Your task to perform on an android device: Open the Play Movies app and select the watchlist tab. Image 0: 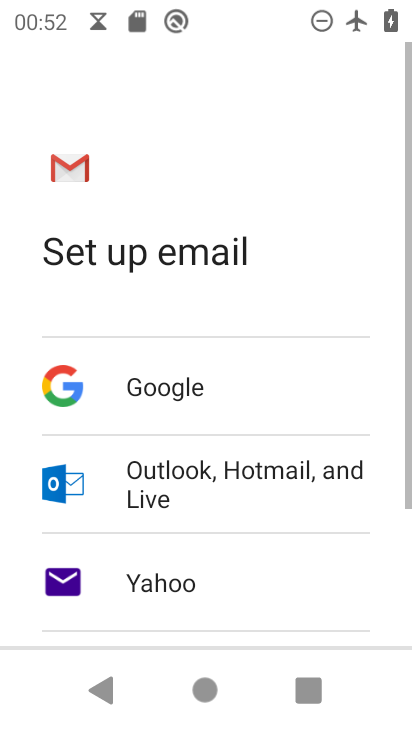
Step 0: drag from (278, 550) to (357, 186)
Your task to perform on an android device: Open the Play Movies app and select the watchlist tab. Image 1: 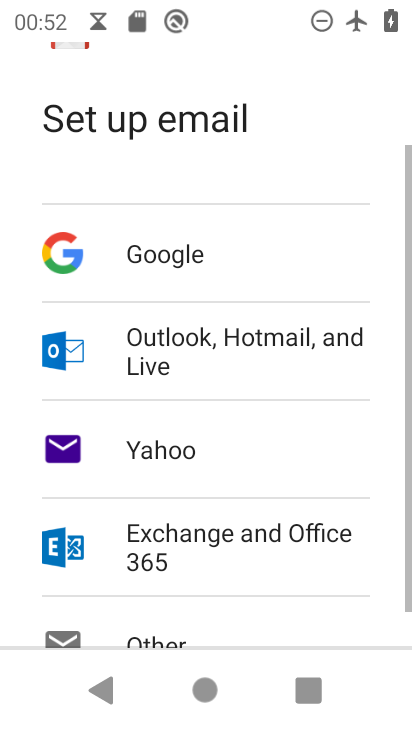
Step 1: drag from (241, 610) to (292, 152)
Your task to perform on an android device: Open the Play Movies app and select the watchlist tab. Image 2: 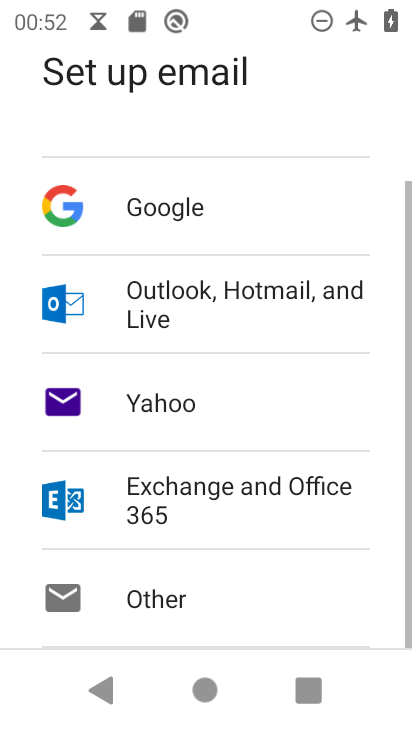
Step 2: drag from (202, 572) to (245, 222)
Your task to perform on an android device: Open the Play Movies app and select the watchlist tab. Image 3: 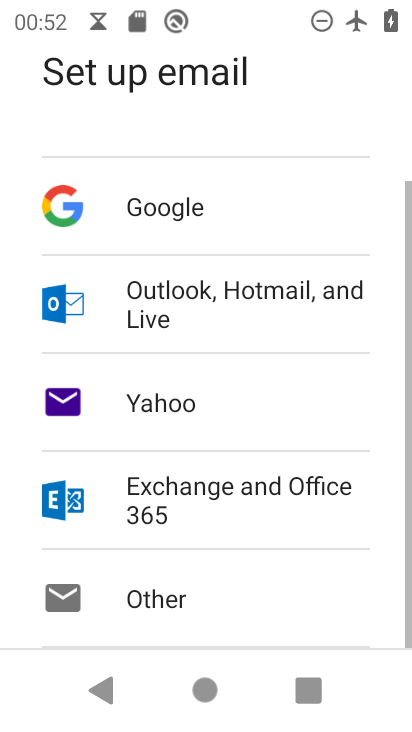
Step 3: drag from (248, 489) to (257, 265)
Your task to perform on an android device: Open the Play Movies app and select the watchlist tab. Image 4: 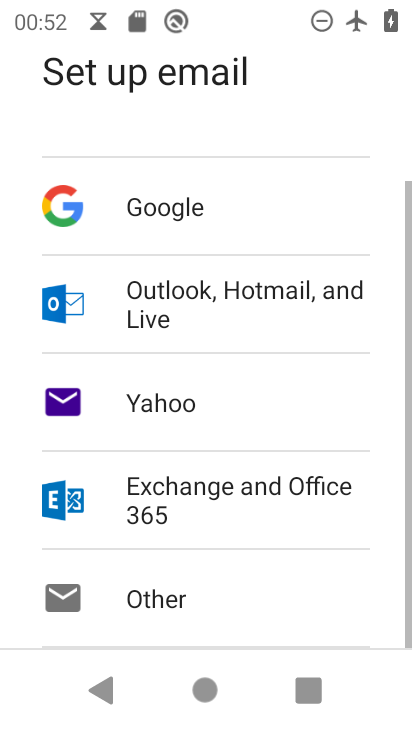
Step 4: drag from (254, 565) to (277, 165)
Your task to perform on an android device: Open the Play Movies app and select the watchlist tab. Image 5: 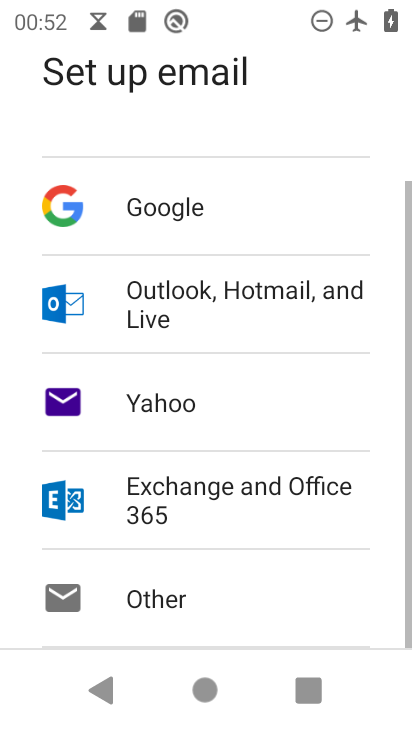
Step 5: drag from (174, 574) to (255, 179)
Your task to perform on an android device: Open the Play Movies app and select the watchlist tab. Image 6: 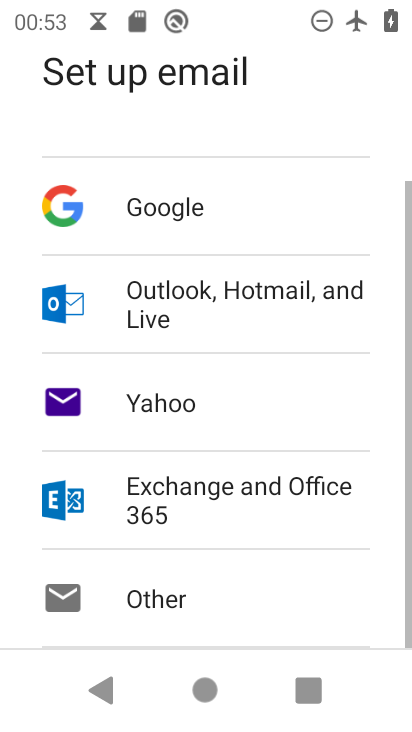
Step 6: drag from (215, 474) to (250, 93)
Your task to perform on an android device: Open the Play Movies app and select the watchlist tab. Image 7: 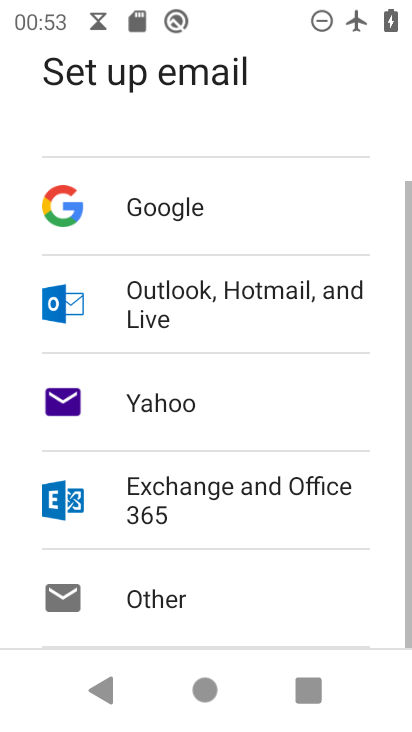
Step 7: press home button
Your task to perform on an android device: Open the Play Movies app and select the watchlist tab. Image 8: 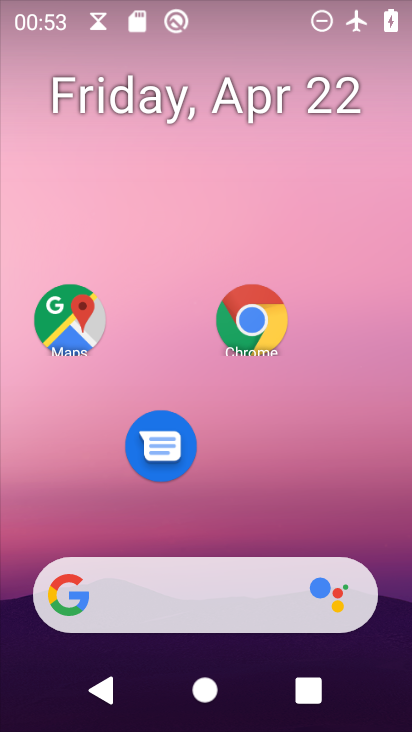
Step 8: drag from (210, 522) to (143, 231)
Your task to perform on an android device: Open the Play Movies app and select the watchlist tab. Image 9: 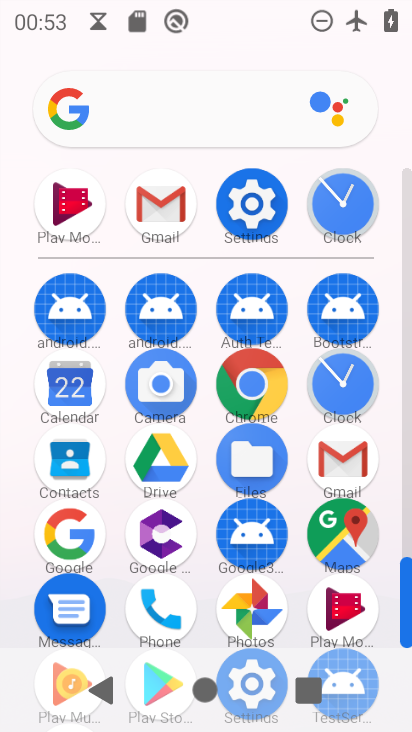
Step 9: click (335, 616)
Your task to perform on an android device: Open the Play Movies app and select the watchlist tab. Image 10: 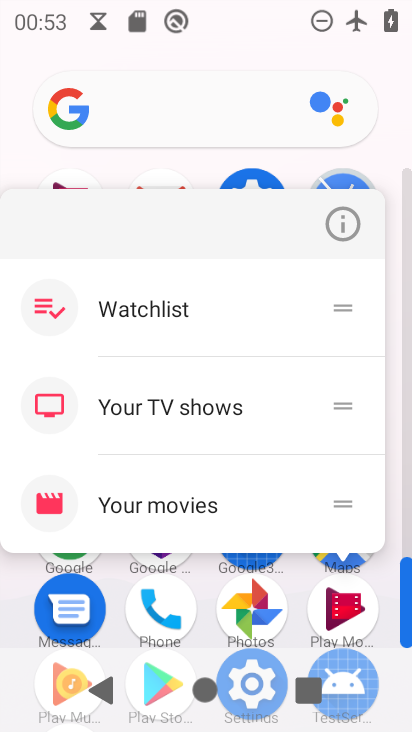
Step 10: click (339, 222)
Your task to perform on an android device: Open the Play Movies app and select the watchlist tab. Image 11: 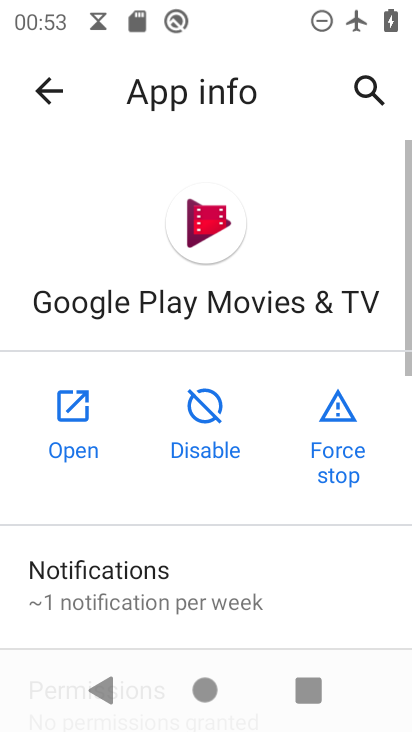
Step 11: click (73, 404)
Your task to perform on an android device: Open the Play Movies app and select the watchlist tab. Image 12: 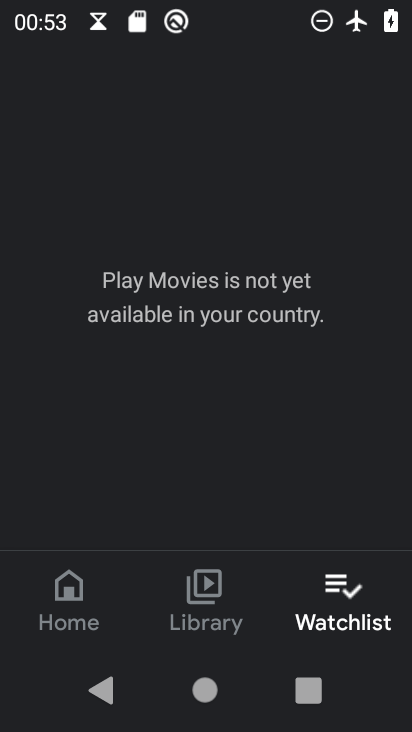
Step 12: drag from (266, 525) to (296, 306)
Your task to perform on an android device: Open the Play Movies app and select the watchlist tab. Image 13: 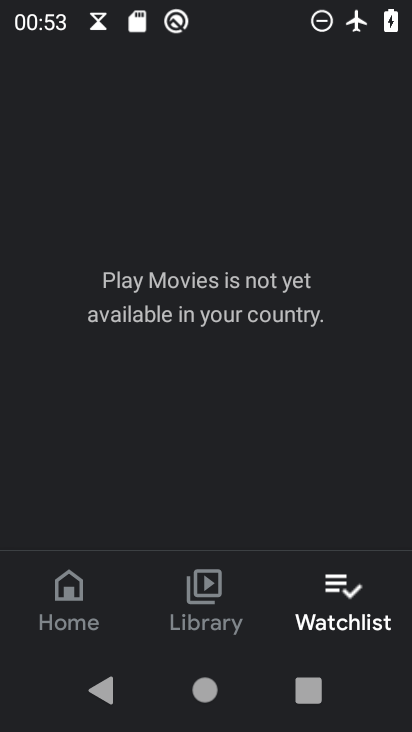
Step 13: click (361, 601)
Your task to perform on an android device: Open the Play Movies app and select the watchlist tab. Image 14: 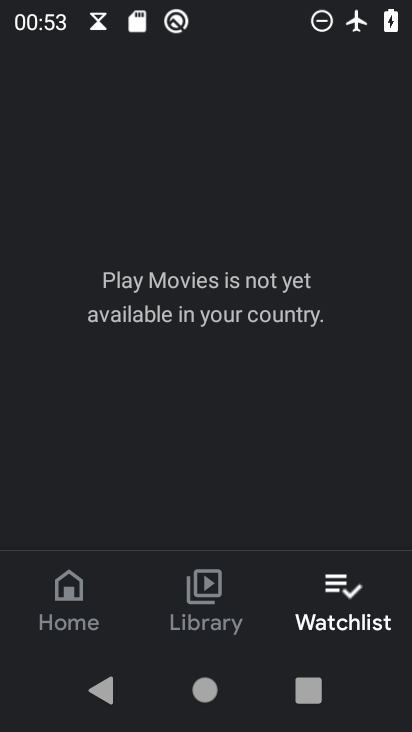
Step 14: click (264, 175)
Your task to perform on an android device: Open the Play Movies app and select the watchlist tab. Image 15: 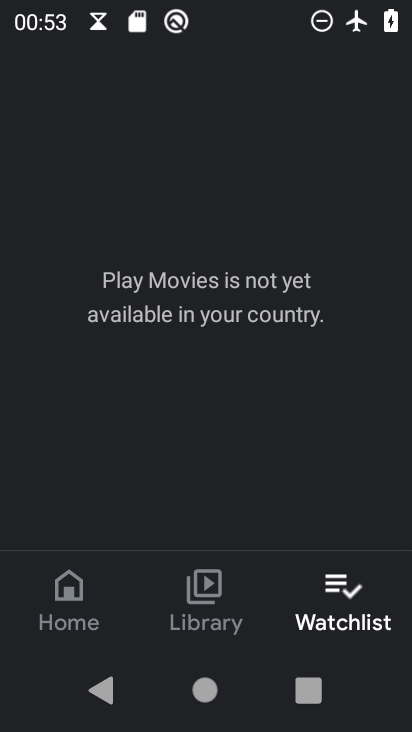
Step 15: click (228, 234)
Your task to perform on an android device: Open the Play Movies app and select the watchlist tab. Image 16: 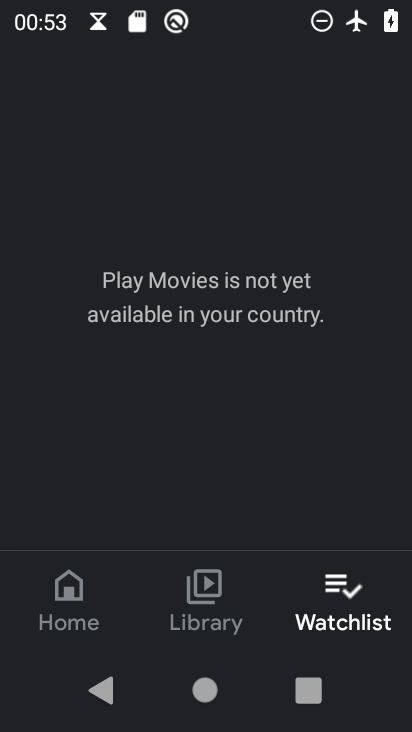
Step 16: task complete